Your task to perform on an android device: Open Android settings Image 0: 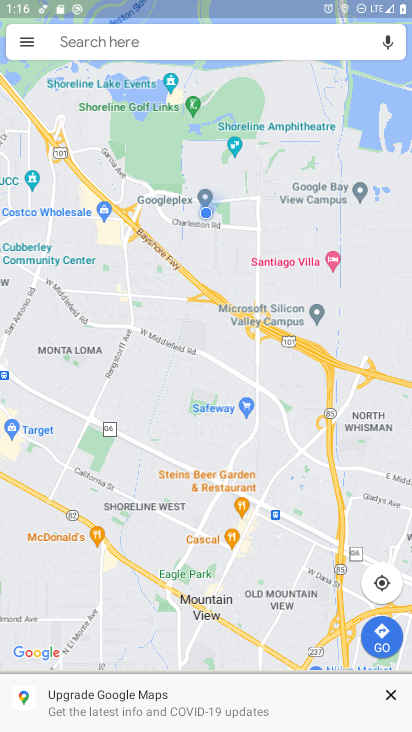
Step 0: press home button
Your task to perform on an android device: Open Android settings Image 1: 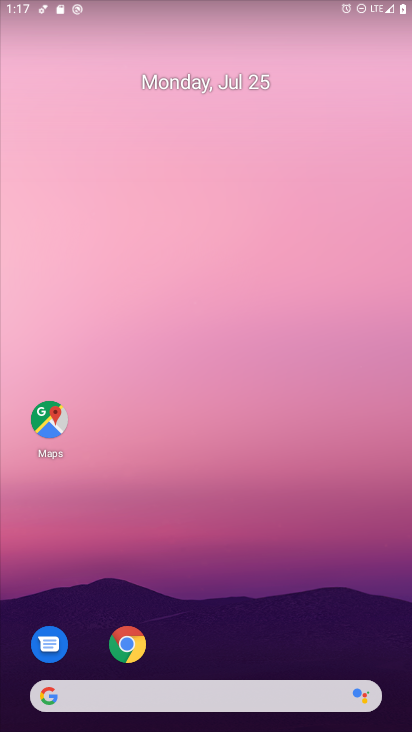
Step 1: drag from (215, 631) to (291, 0)
Your task to perform on an android device: Open Android settings Image 2: 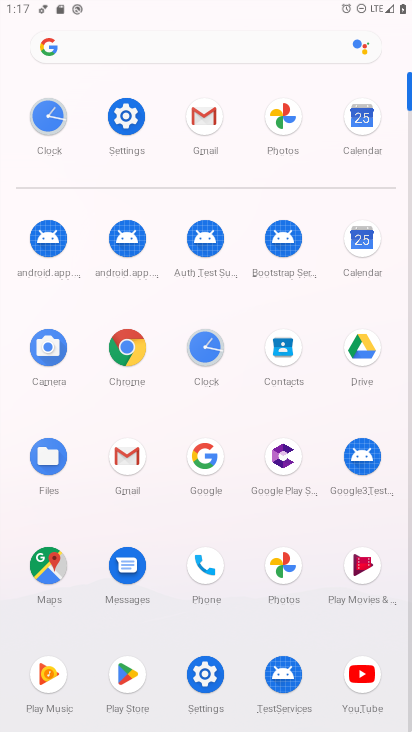
Step 2: click (128, 120)
Your task to perform on an android device: Open Android settings Image 3: 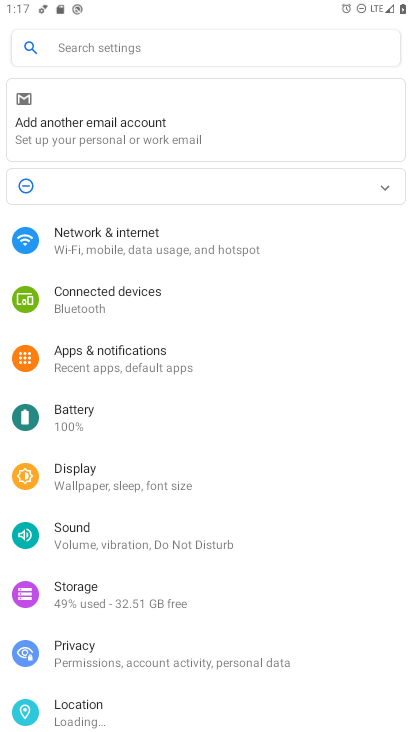
Step 3: drag from (283, 599) to (232, 104)
Your task to perform on an android device: Open Android settings Image 4: 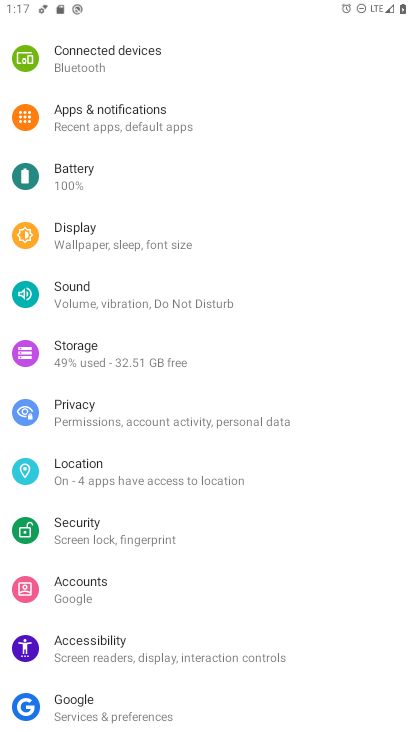
Step 4: drag from (210, 468) to (223, 94)
Your task to perform on an android device: Open Android settings Image 5: 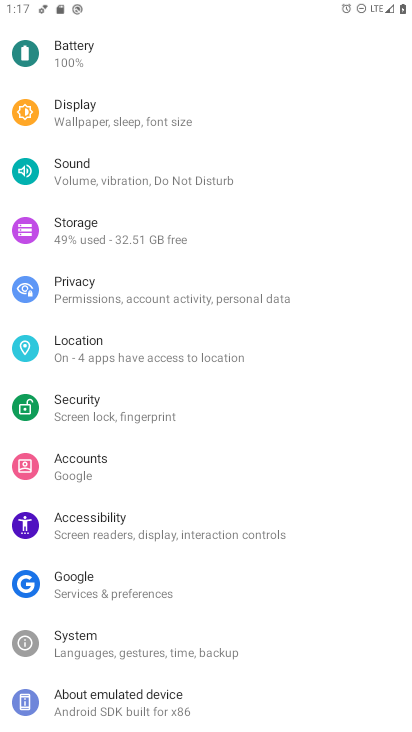
Step 5: click (168, 640)
Your task to perform on an android device: Open Android settings Image 6: 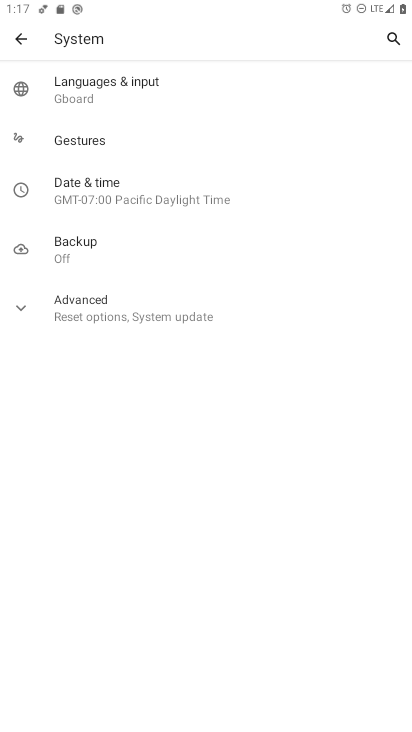
Step 6: task complete